Your task to perform on an android device: turn notification dots off Image 0: 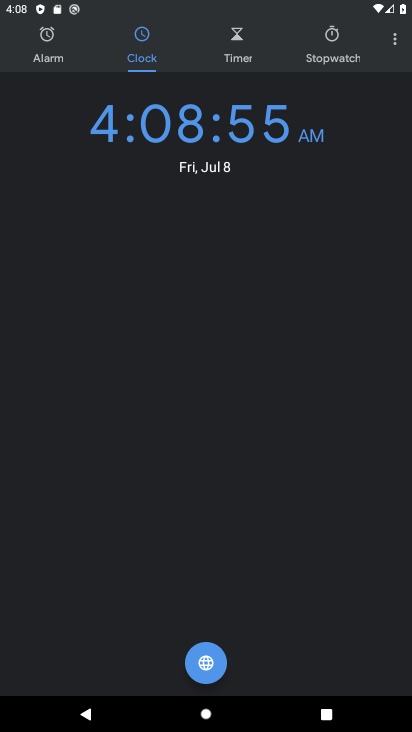
Step 0: press home button
Your task to perform on an android device: turn notification dots off Image 1: 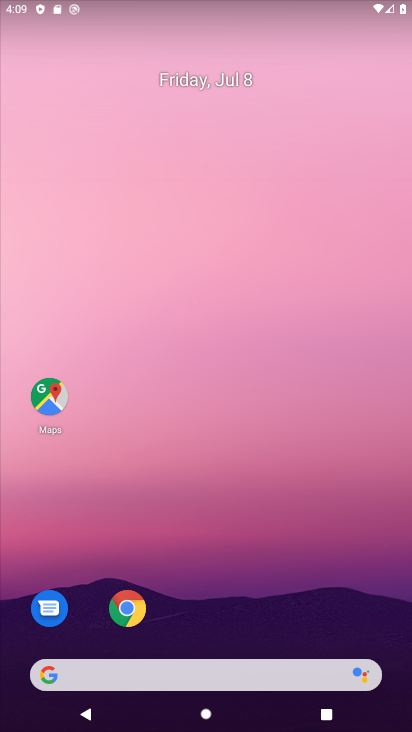
Step 1: drag from (277, 601) to (318, 9)
Your task to perform on an android device: turn notification dots off Image 2: 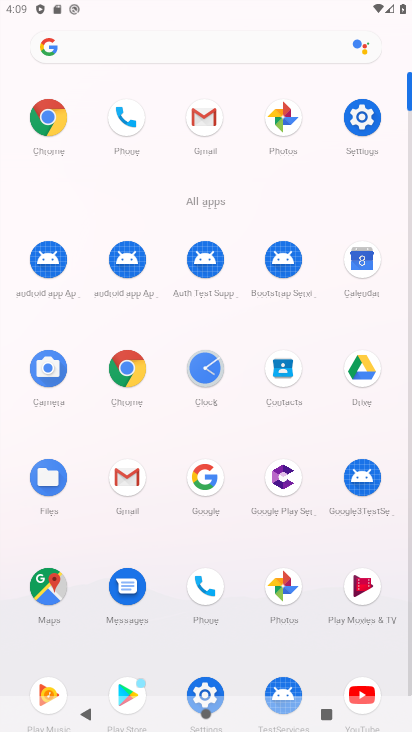
Step 2: click (360, 111)
Your task to perform on an android device: turn notification dots off Image 3: 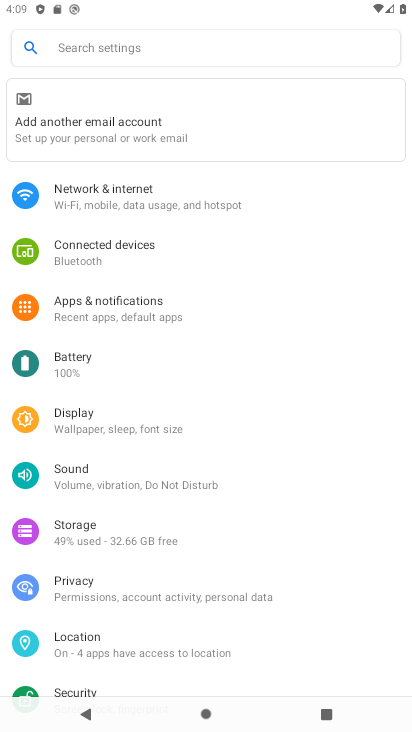
Step 3: click (155, 311)
Your task to perform on an android device: turn notification dots off Image 4: 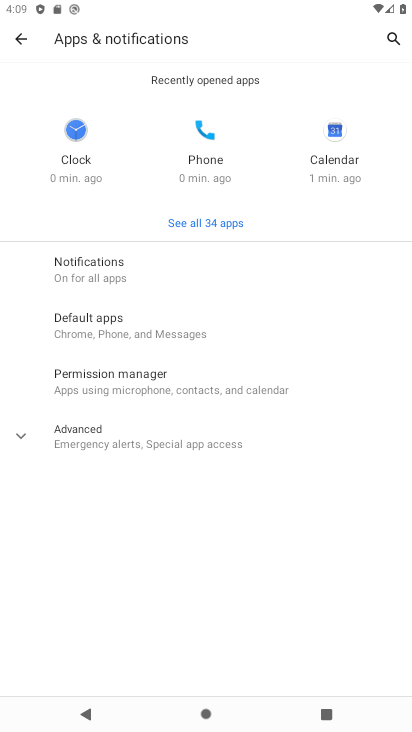
Step 4: click (98, 271)
Your task to perform on an android device: turn notification dots off Image 5: 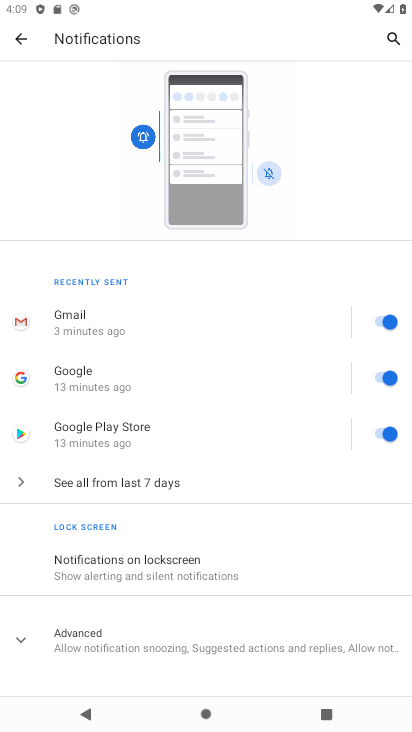
Step 5: click (61, 642)
Your task to perform on an android device: turn notification dots off Image 6: 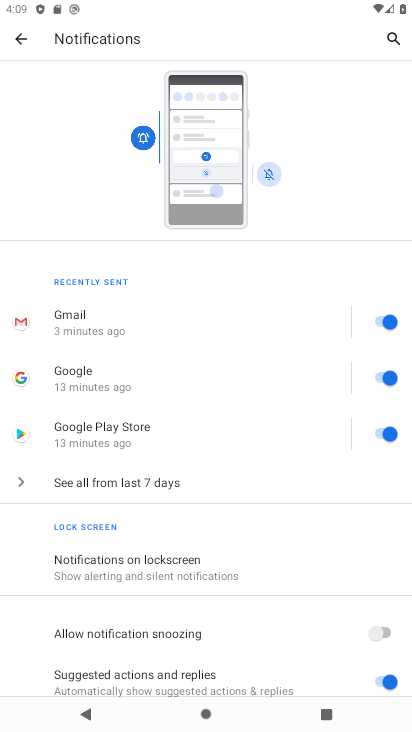
Step 6: drag from (309, 576) to (327, 206)
Your task to perform on an android device: turn notification dots off Image 7: 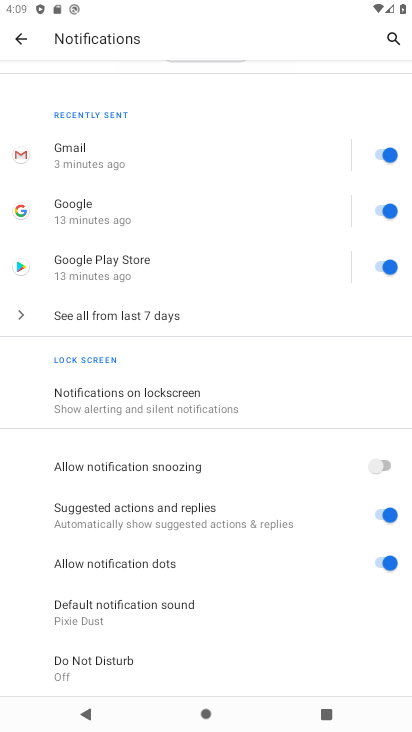
Step 7: click (382, 560)
Your task to perform on an android device: turn notification dots off Image 8: 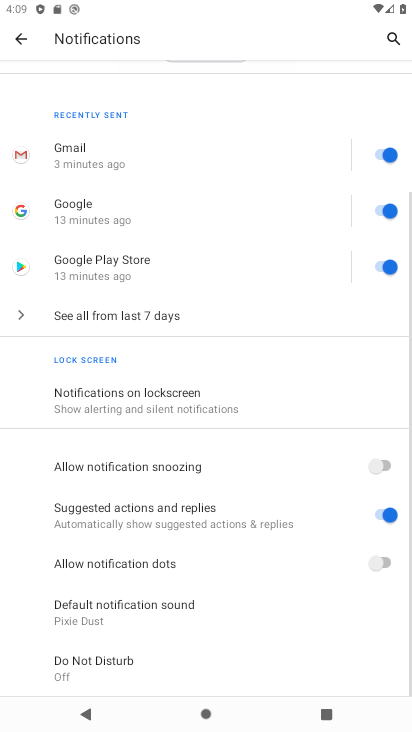
Step 8: task complete